Your task to perform on an android device: Google the capital of Peru Image 0: 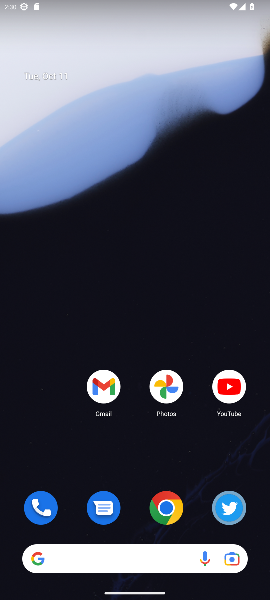
Step 0: click (169, 503)
Your task to perform on an android device: Google the capital of Peru Image 1: 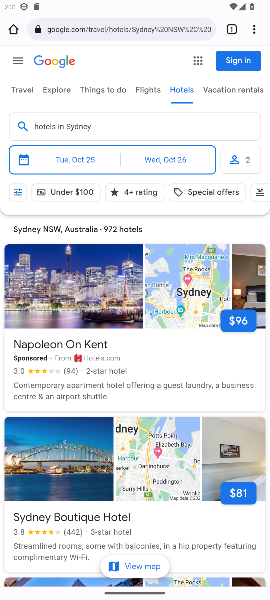
Step 1: click (142, 29)
Your task to perform on an android device: Google the capital of Peru Image 2: 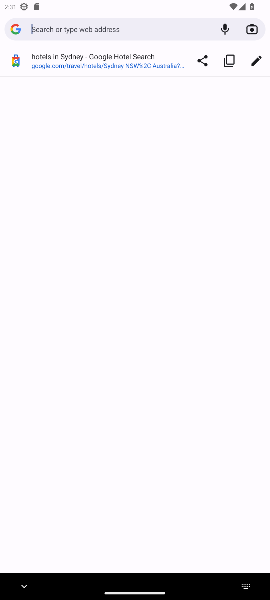
Step 2: type "capital of Peru"
Your task to perform on an android device: Google the capital of Peru Image 3: 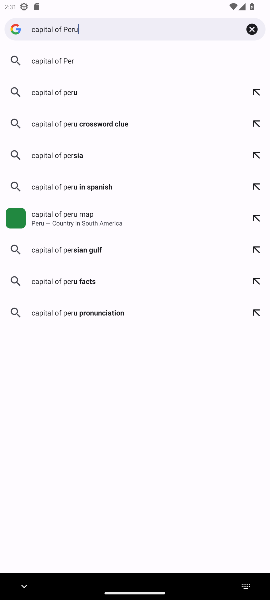
Step 3: type ""
Your task to perform on an android device: Google the capital of Peru Image 4: 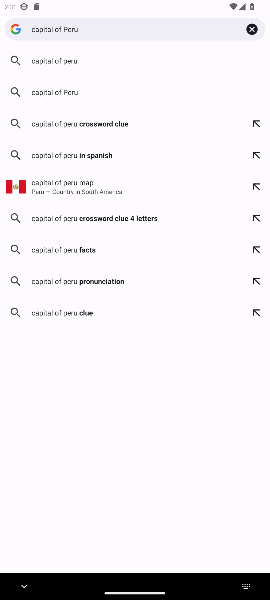
Step 4: click (76, 60)
Your task to perform on an android device: Google the capital of Peru Image 5: 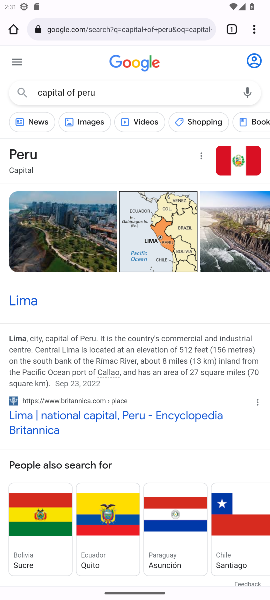
Step 5: task complete